Your task to perform on an android device: Go to ESPN.com Image 0: 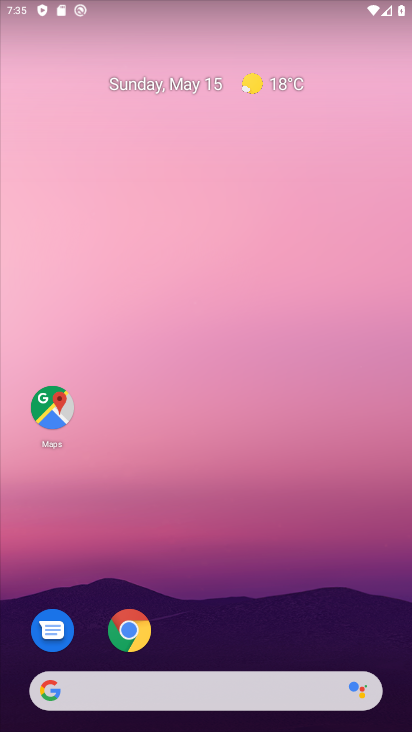
Step 0: drag from (175, 648) to (291, 6)
Your task to perform on an android device: Go to ESPN.com Image 1: 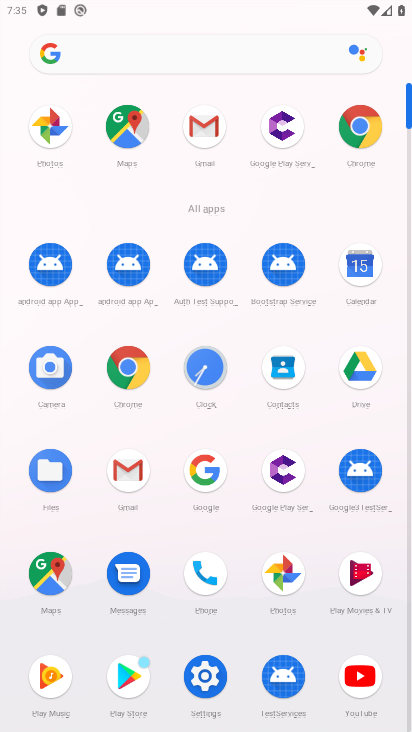
Step 1: click (157, 54)
Your task to perform on an android device: Go to ESPN.com Image 2: 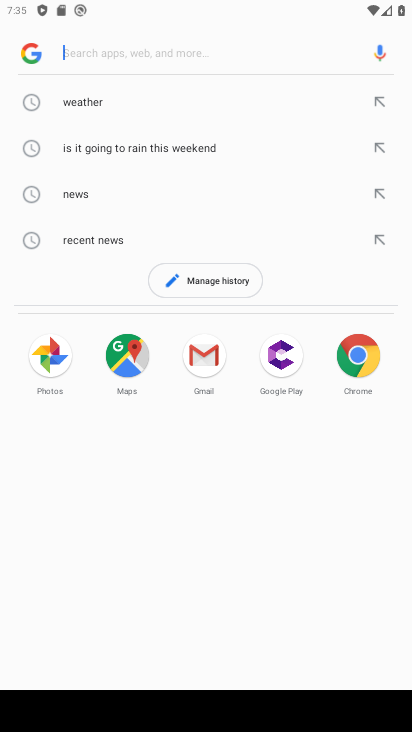
Step 2: type "espn.com"
Your task to perform on an android device: Go to ESPN.com Image 3: 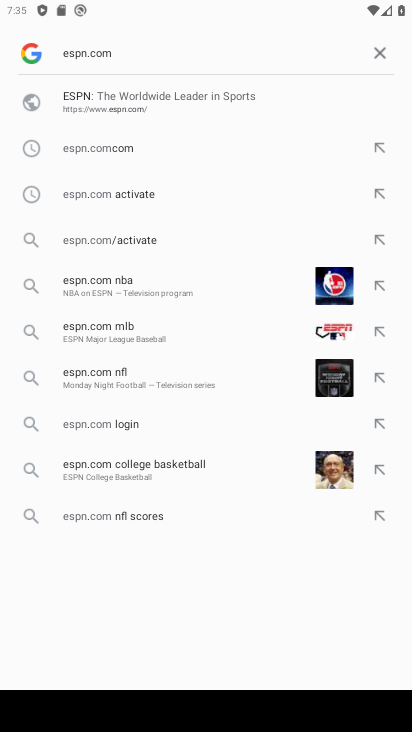
Step 3: click (65, 112)
Your task to perform on an android device: Go to ESPN.com Image 4: 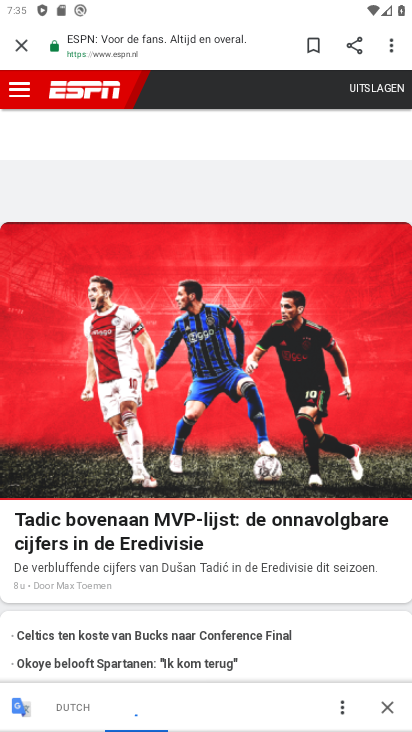
Step 4: task complete